Your task to perform on an android device: Open eBay Image 0: 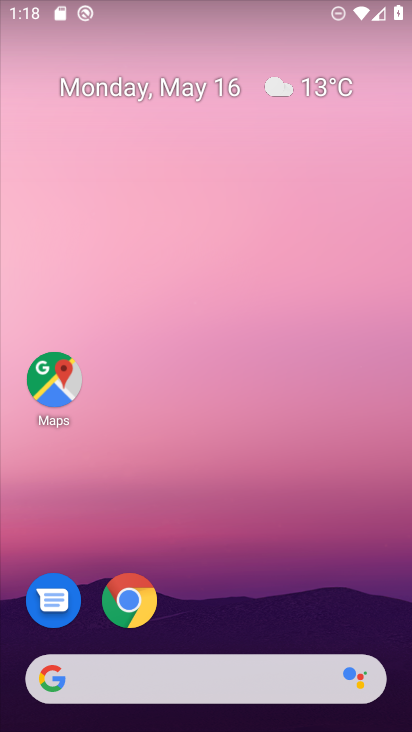
Step 0: press home button
Your task to perform on an android device: Open eBay Image 1: 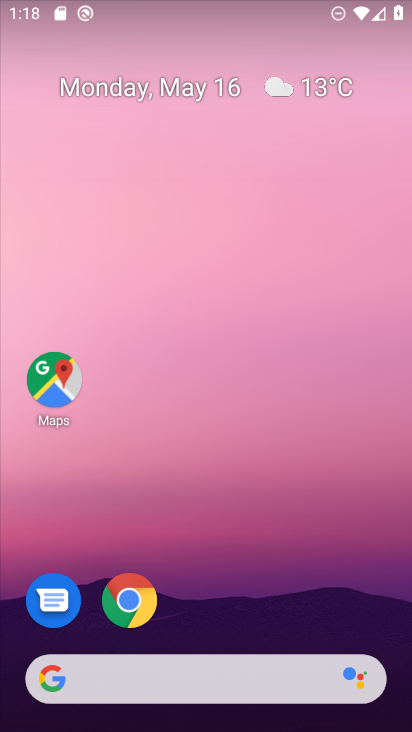
Step 1: drag from (220, 631) to (254, 56)
Your task to perform on an android device: Open eBay Image 2: 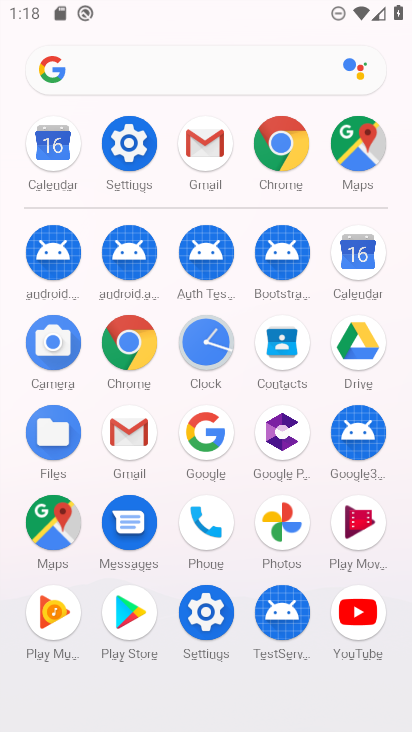
Step 2: click (127, 335)
Your task to perform on an android device: Open eBay Image 3: 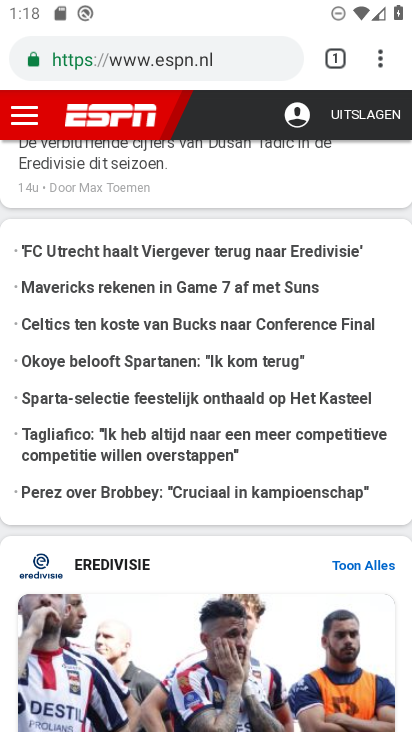
Step 3: click (335, 54)
Your task to perform on an android device: Open eBay Image 4: 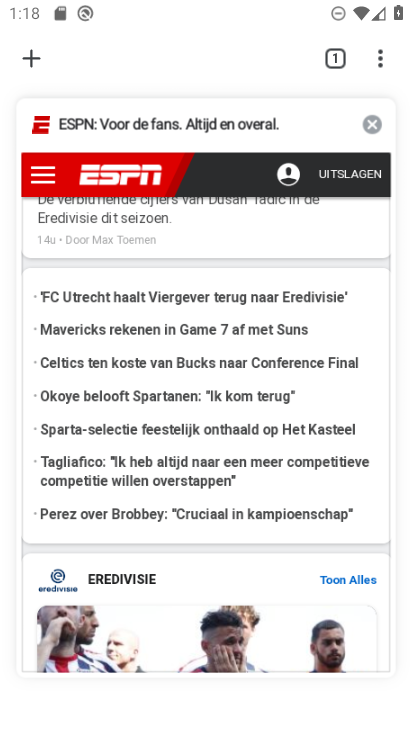
Step 4: click (370, 117)
Your task to perform on an android device: Open eBay Image 5: 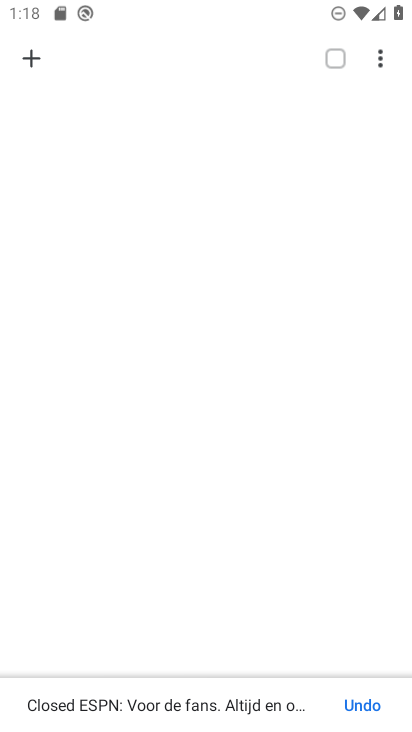
Step 5: click (34, 60)
Your task to perform on an android device: Open eBay Image 6: 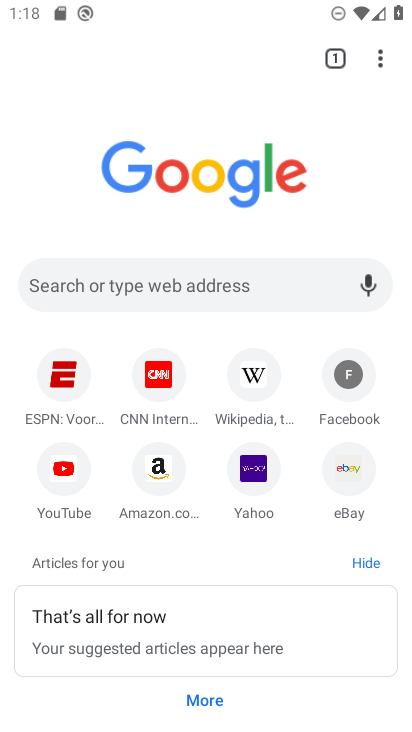
Step 6: click (343, 460)
Your task to perform on an android device: Open eBay Image 7: 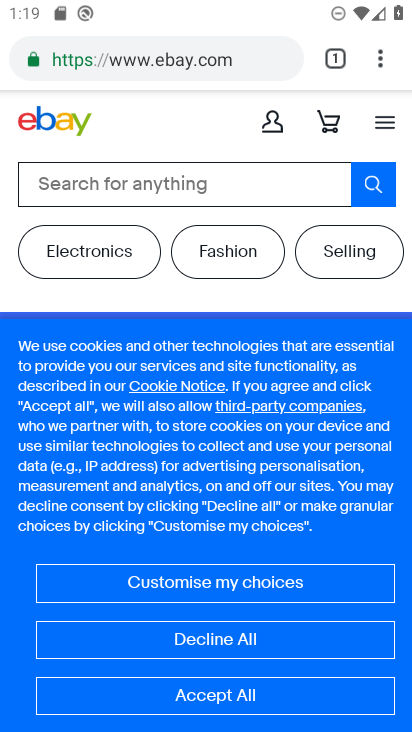
Step 7: click (224, 700)
Your task to perform on an android device: Open eBay Image 8: 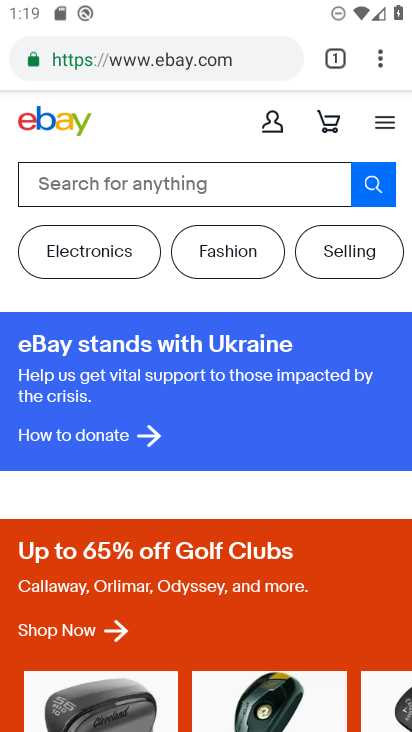
Step 8: task complete